Your task to perform on an android device: Play the last video I watched on Youtube Image 0: 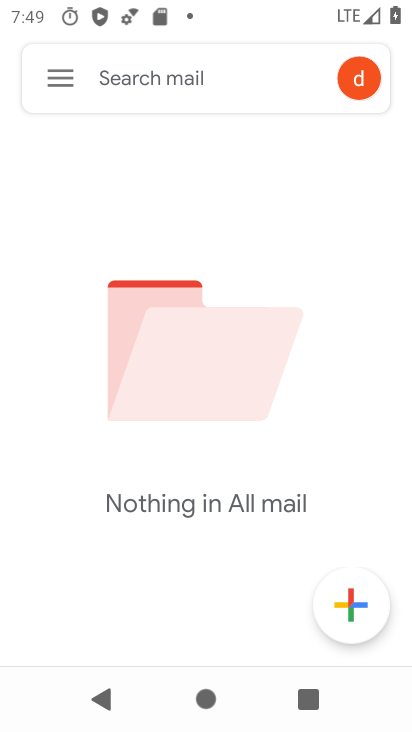
Step 0: press home button
Your task to perform on an android device: Play the last video I watched on Youtube Image 1: 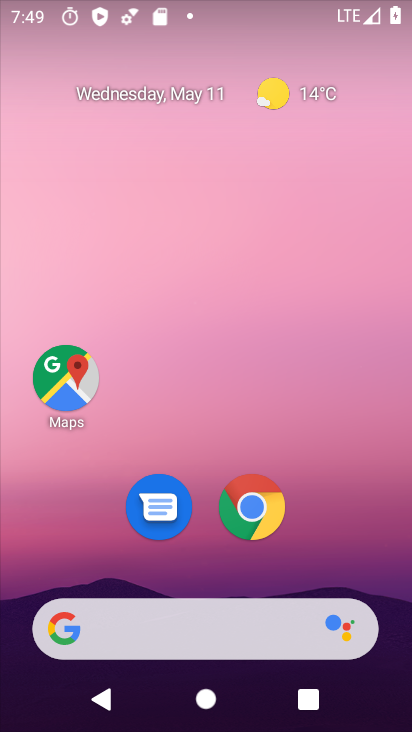
Step 1: click (396, 170)
Your task to perform on an android device: Play the last video I watched on Youtube Image 2: 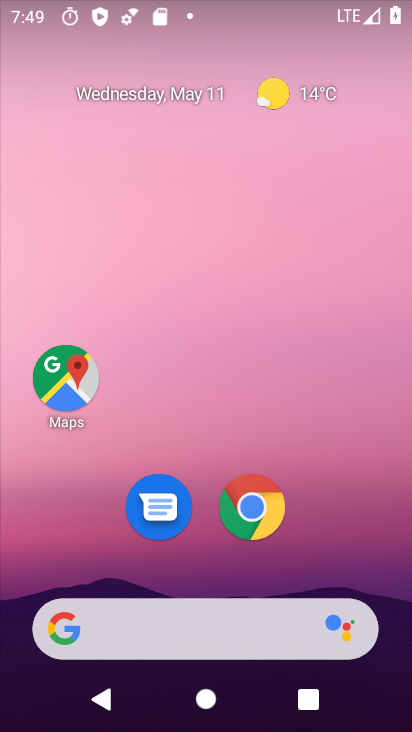
Step 2: drag from (370, 534) to (388, 13)
Your task to perform on an android device: Play the last video I watched on Youtube Image 3: 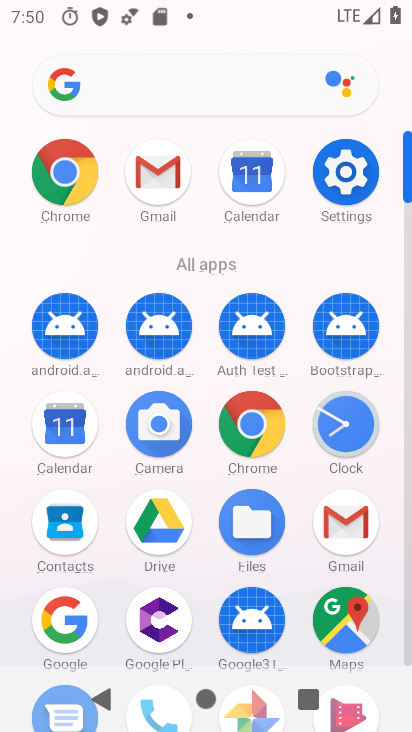
Step 3: drag from (392, 647) to (335, 230)
Your task to perform on an android device: Play the last video I watched on Youtube Image 4: 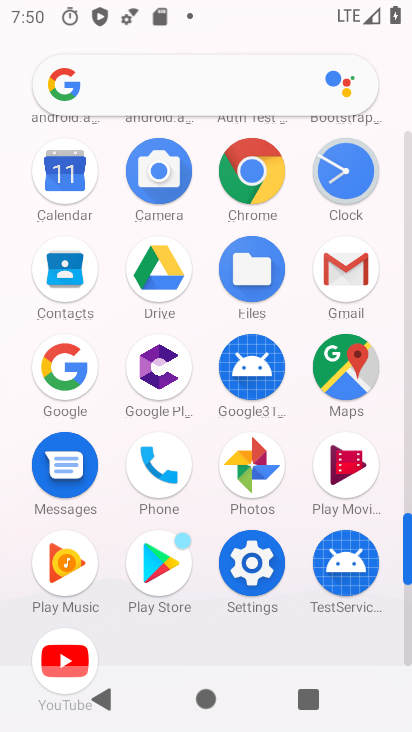
Step 4: click (63, 662)
Your task to perform on an android device: Play the last video I watched on Youtube Image 5: 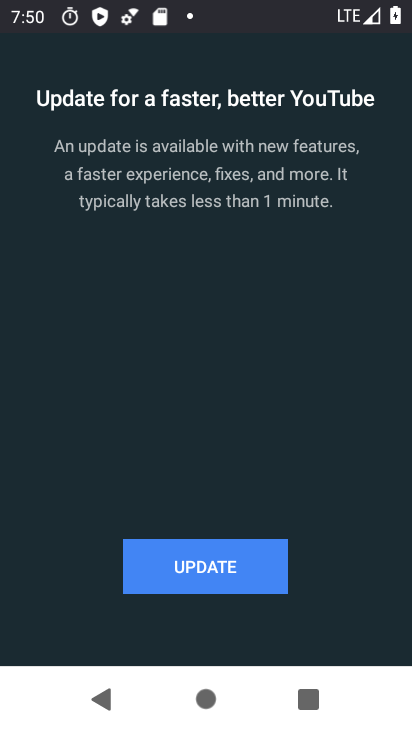
Step 5: click (181, 570)
Your task to perform on an android device: Play the last video I watched on Youtube Image 6: 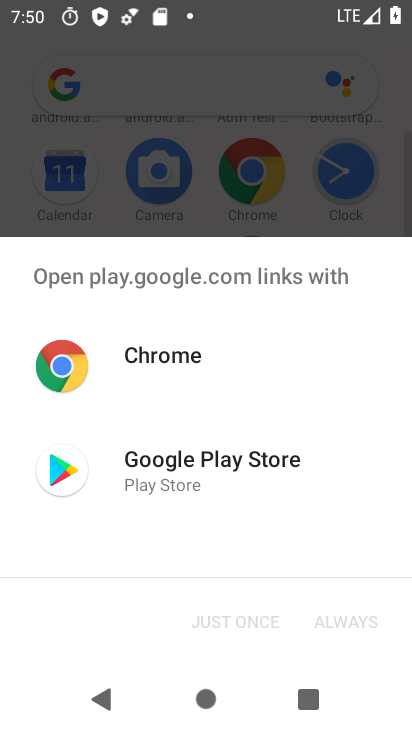
Step 6: click (159, 462)
Your task to perform on an android device: Play the last video I watched on Youtube Image 7: 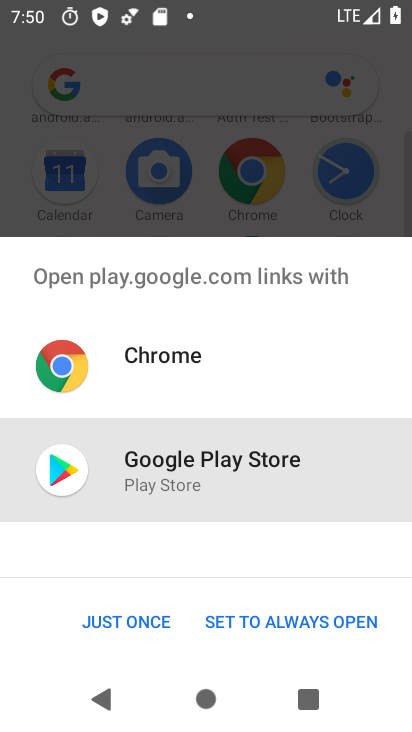
Step 7: click (133, 623)
Your task to perform on an android device: Play the last video I watched on Youtube Image 8: 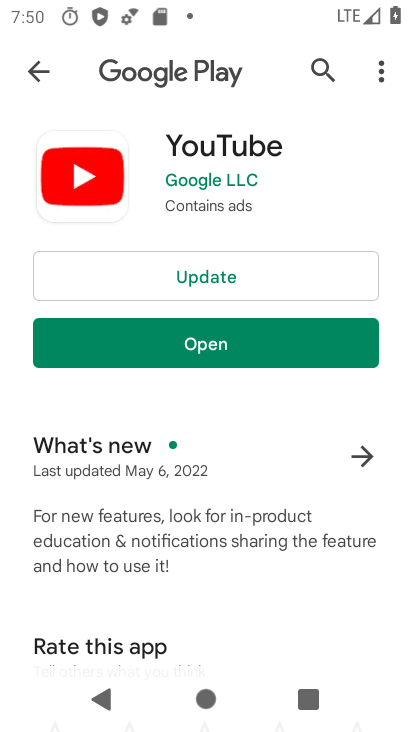
Step 8: click (160, 276)
Your task to perform on an android device: Play the last video I watched on Youtube Image 9: 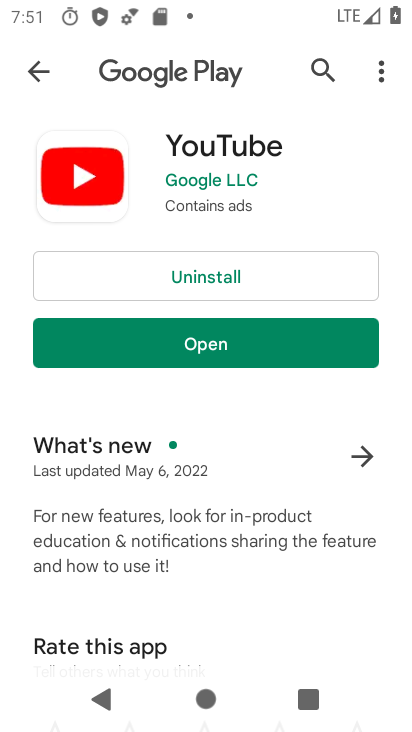
Step 9: click (177, 361)
Your task to perform on an android device: Play the last video I watched on Youtube Image 10: 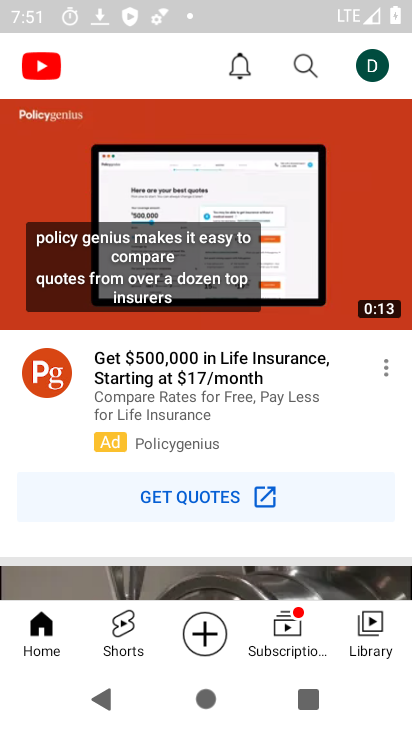
Step 10: click (361, 640)
Your task to perform on an android device: Play the last video I watched on Youtube Image 11: 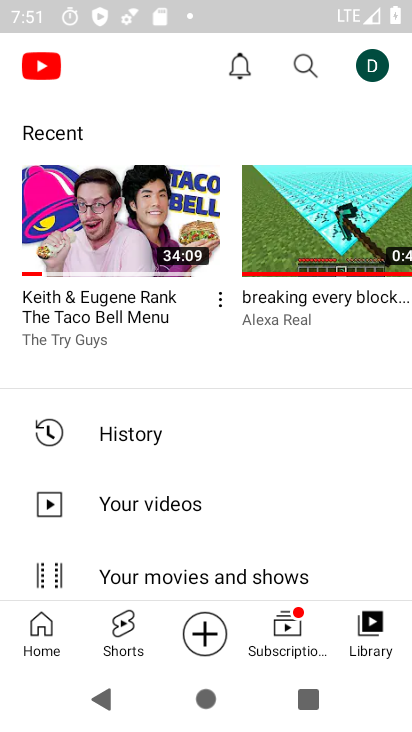
Step 11: click (101, 228)
Your task to perform on an android device: Play the last video I watched on Youtube Image 12: 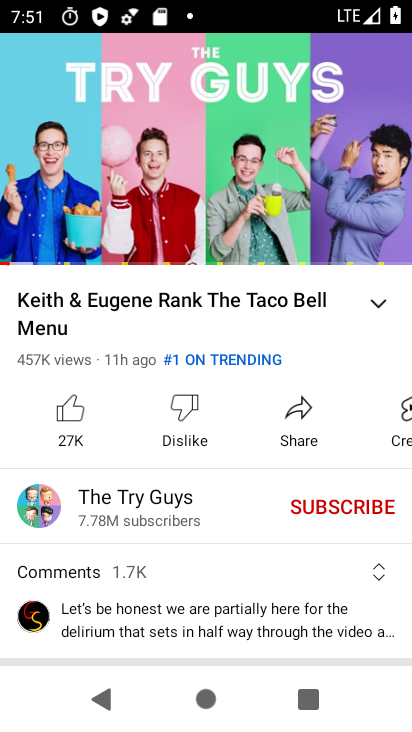
Step 12: task complete